Your task to perform on an android device: open app "Messenger Lite" (install if not already installed) Image 0: 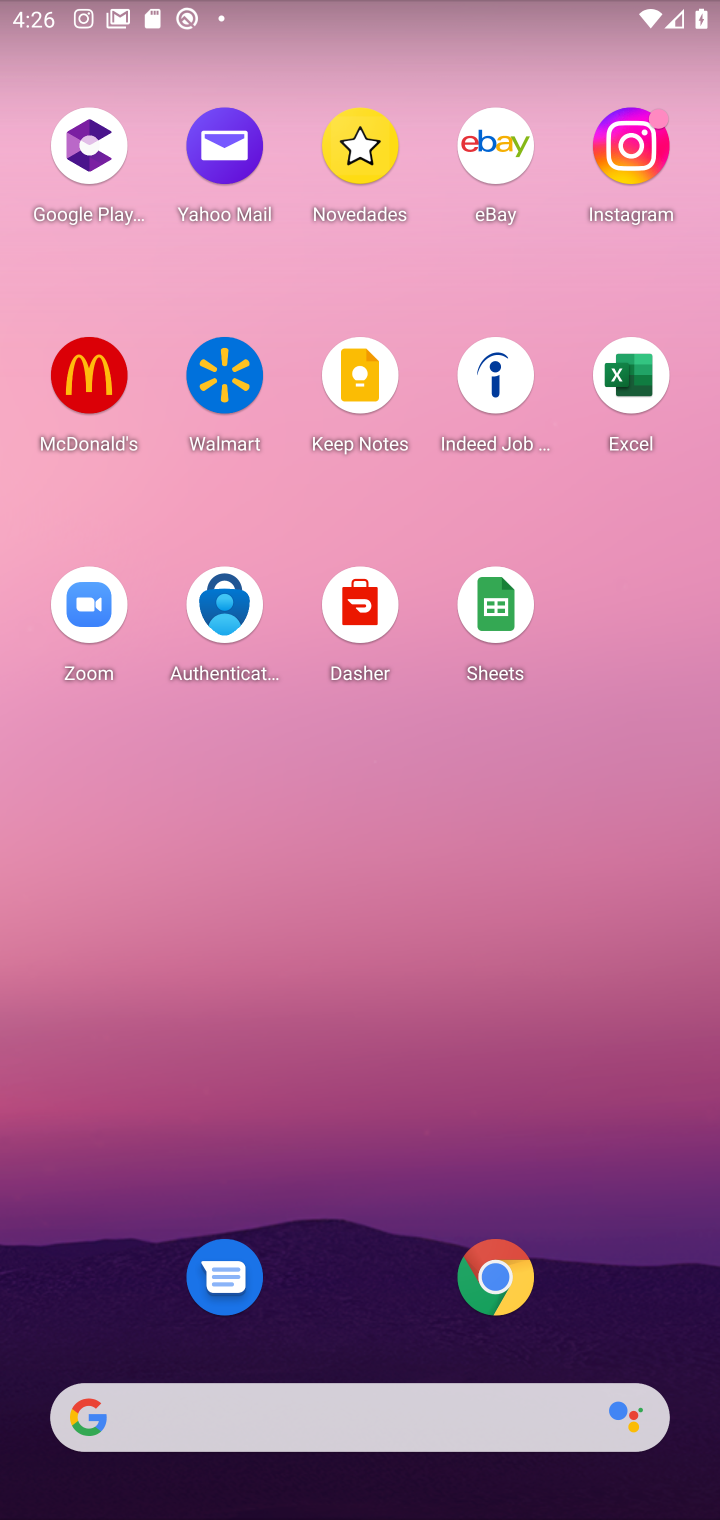
Step 0: drag from (547, 1030) to (514, 9)
Your task to perform on an android device: open app "Messenger Lite" (install if not already installed) Image 1: 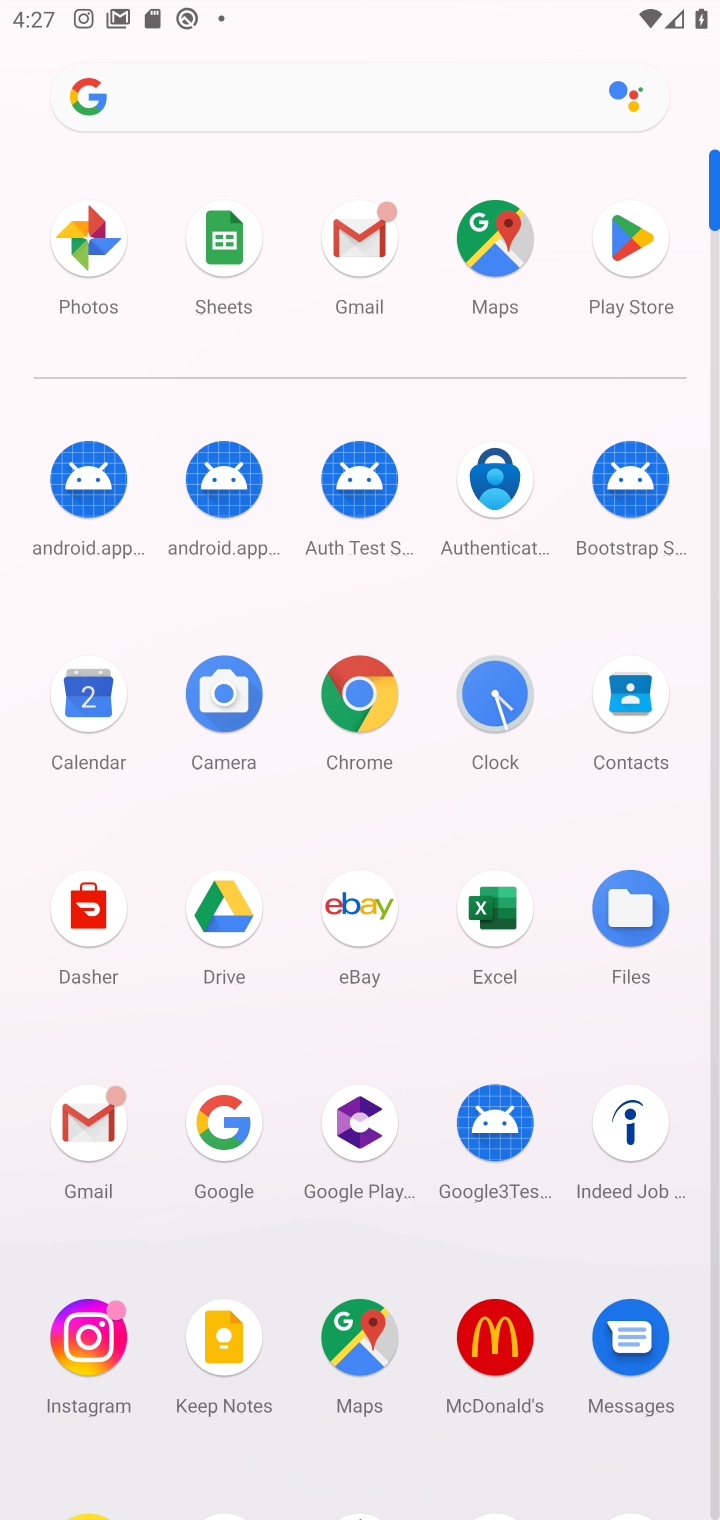
Step 1: drag from (435, 1035) to (457, 349)
Your task to perform on an android device: open app "Messenger Lite" (install if not already installed) Image 2: 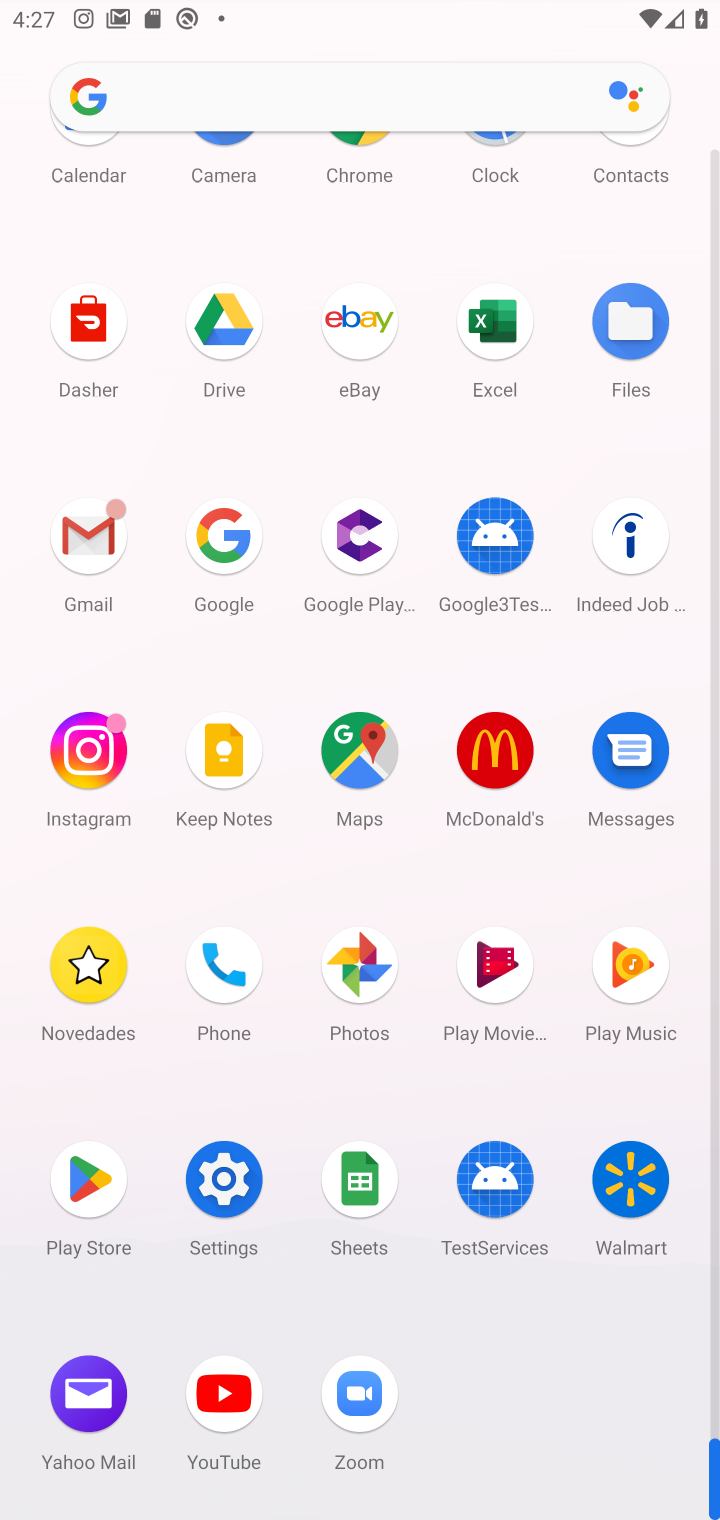
Step 2: click (90, 1187)
Your task to perform on an android device: open app "Messenger Lite" (install if not already installed) Image 3: 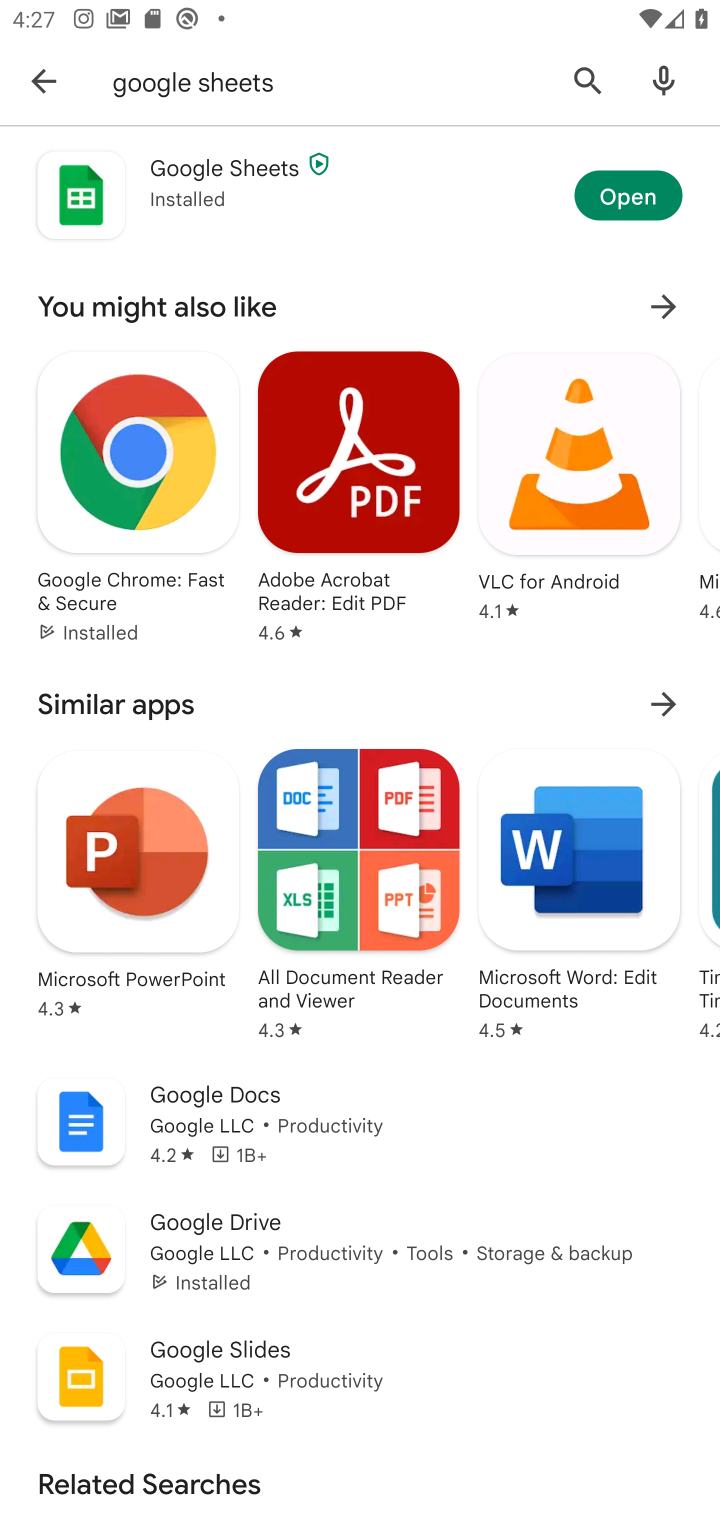
Step 3: click (229, 93)
Your task to perform on an android device: open app "Messenger Lite" (install if not already installed) Image 4: 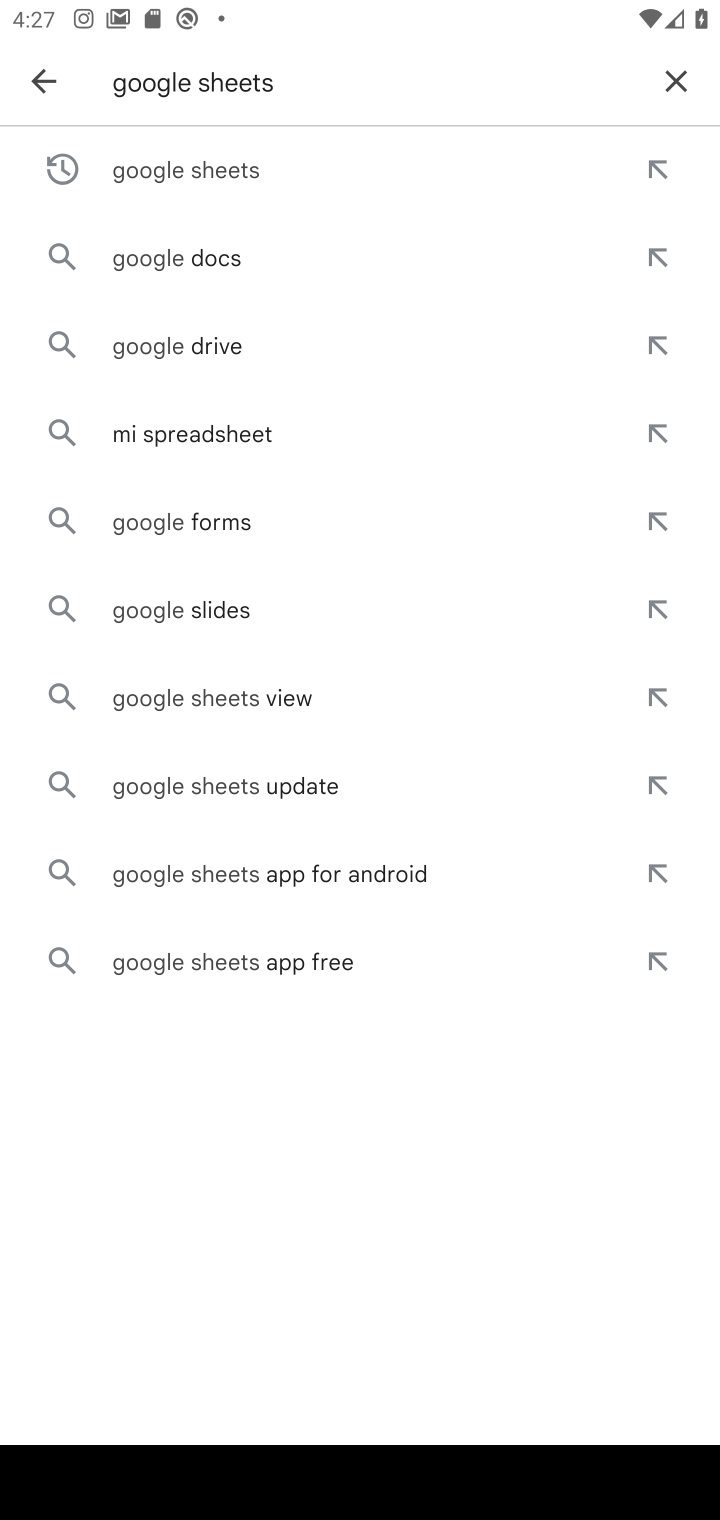
Step 4: click (688, 82)
Your task to perform on an android device: open app "Messenger Lite" (install if not already installed) Image 5: 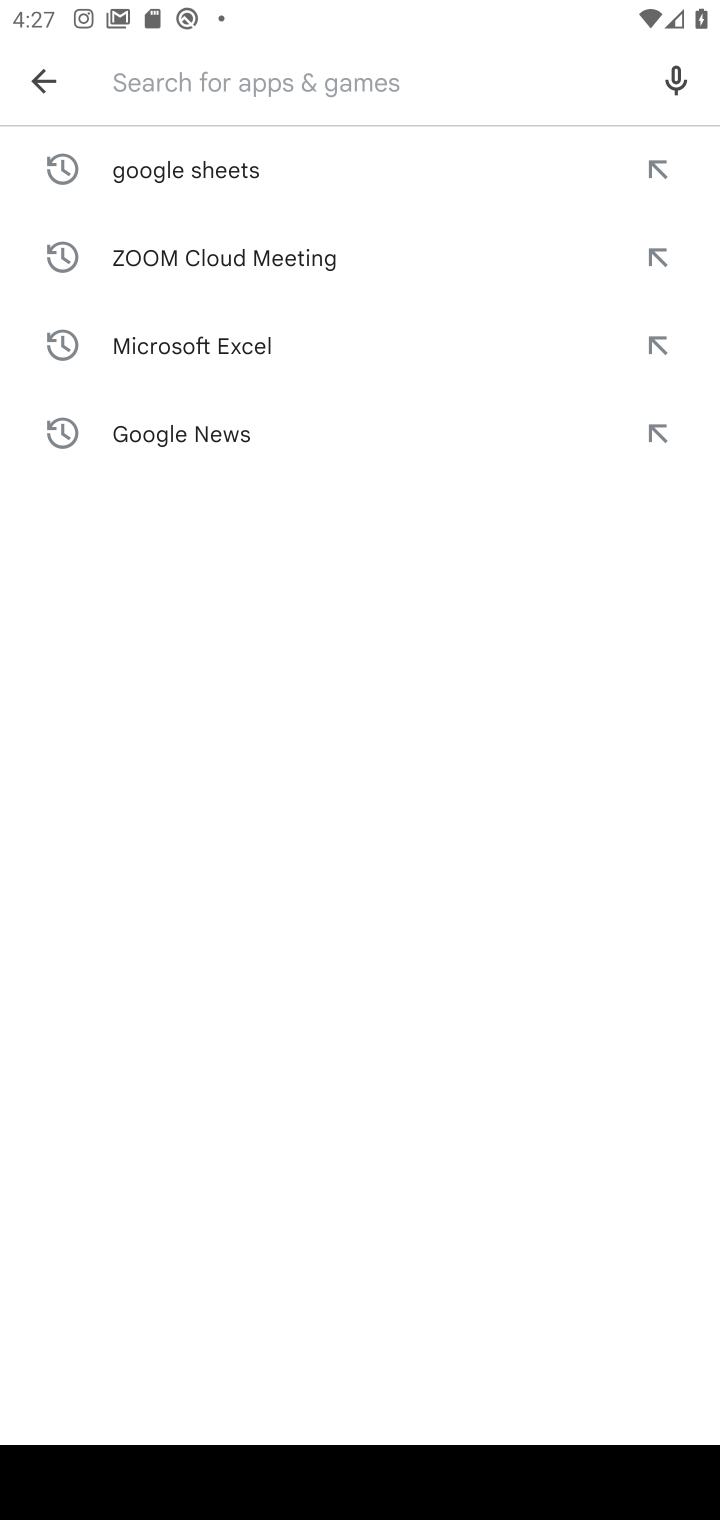
Step 5: type "Messenger Lite"
Your task to perform on an android device: open app "Messenger Lite" (install if not already installed) Image 6: 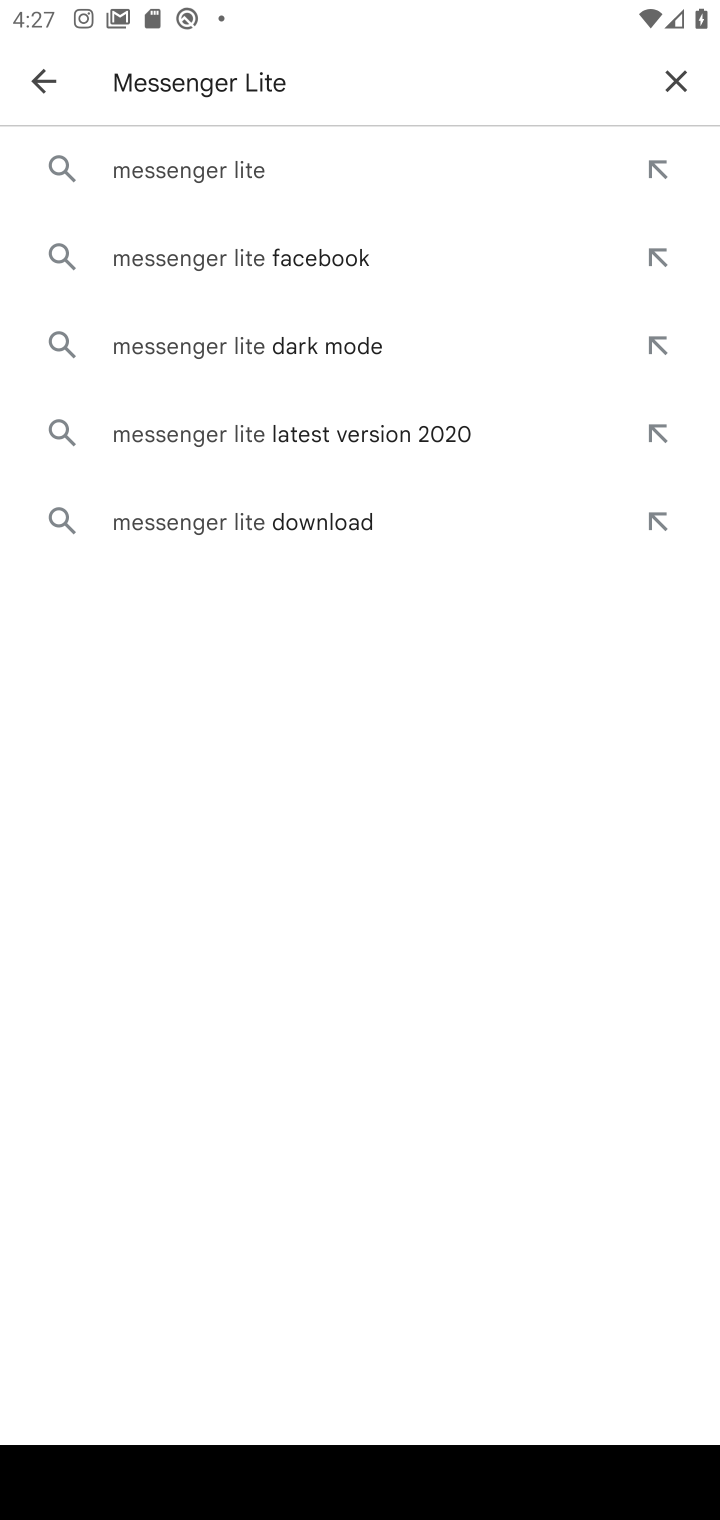
Step 6: press enter
Your task to perform on an android device: open app "Messenger Lite" (install if not already installed) Image 7: 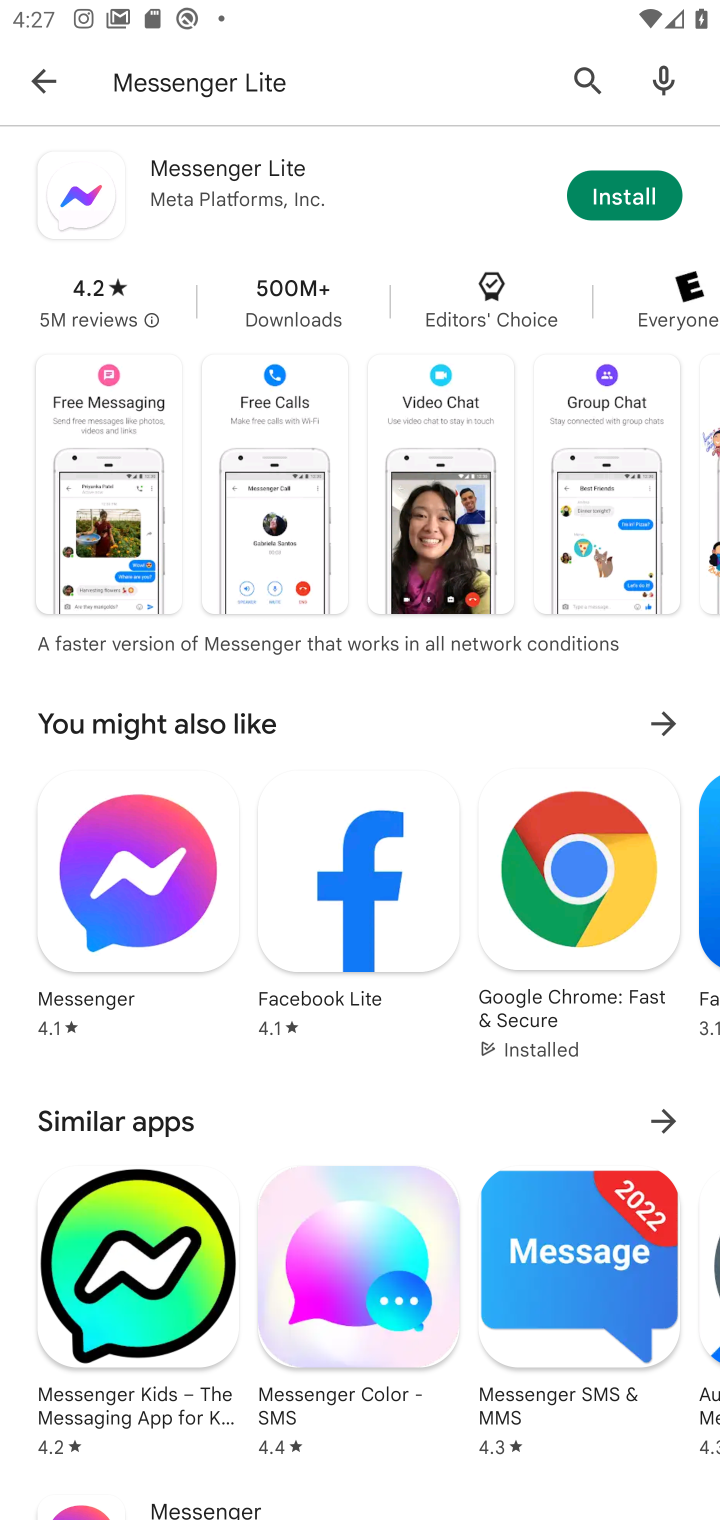
Step 7: click (624, 194)
Your task to perform on an android device: open app "Messenger Lite" (install if not already installed) Image 8: 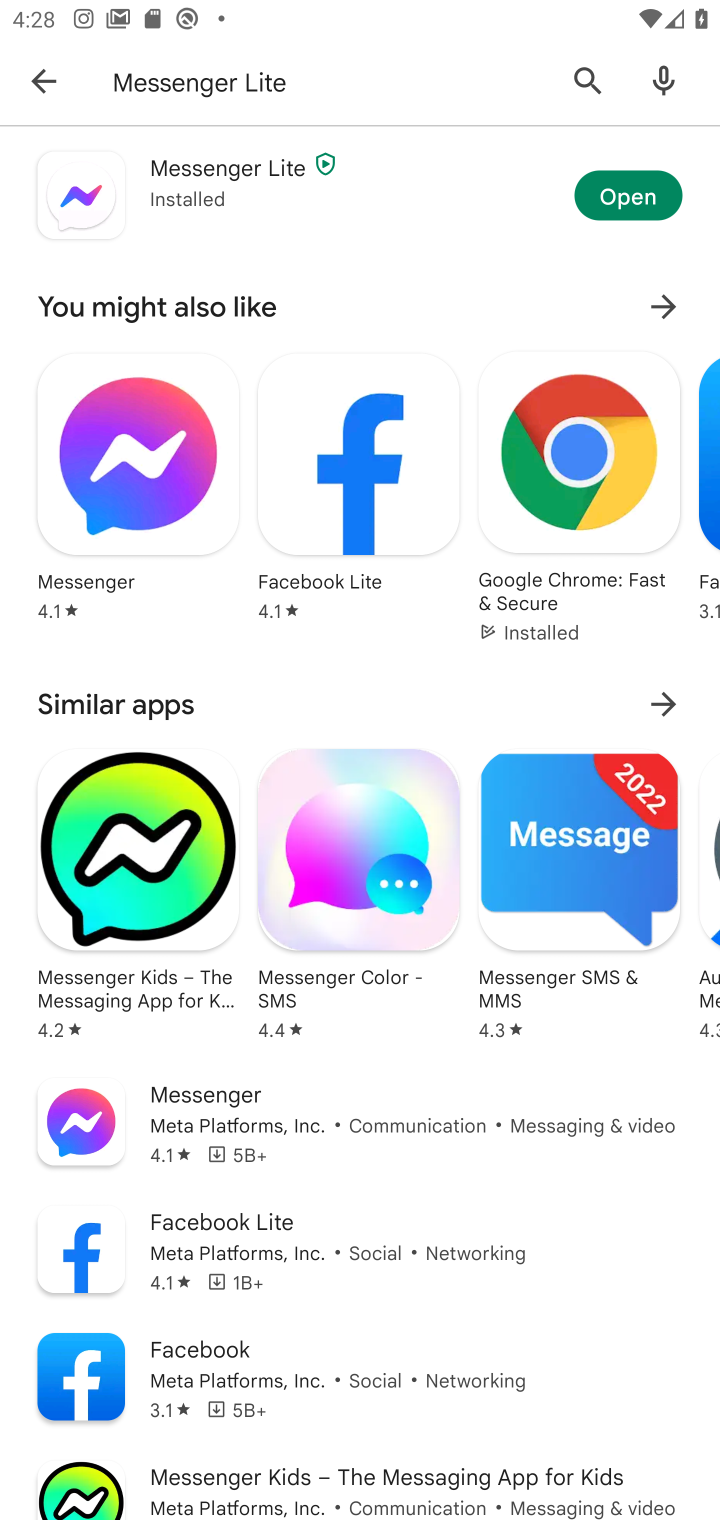
Step 8: click (633, 184)
Your task to perform on an android device: open app "Messenger Lite" (install if not already installed) Image 9: 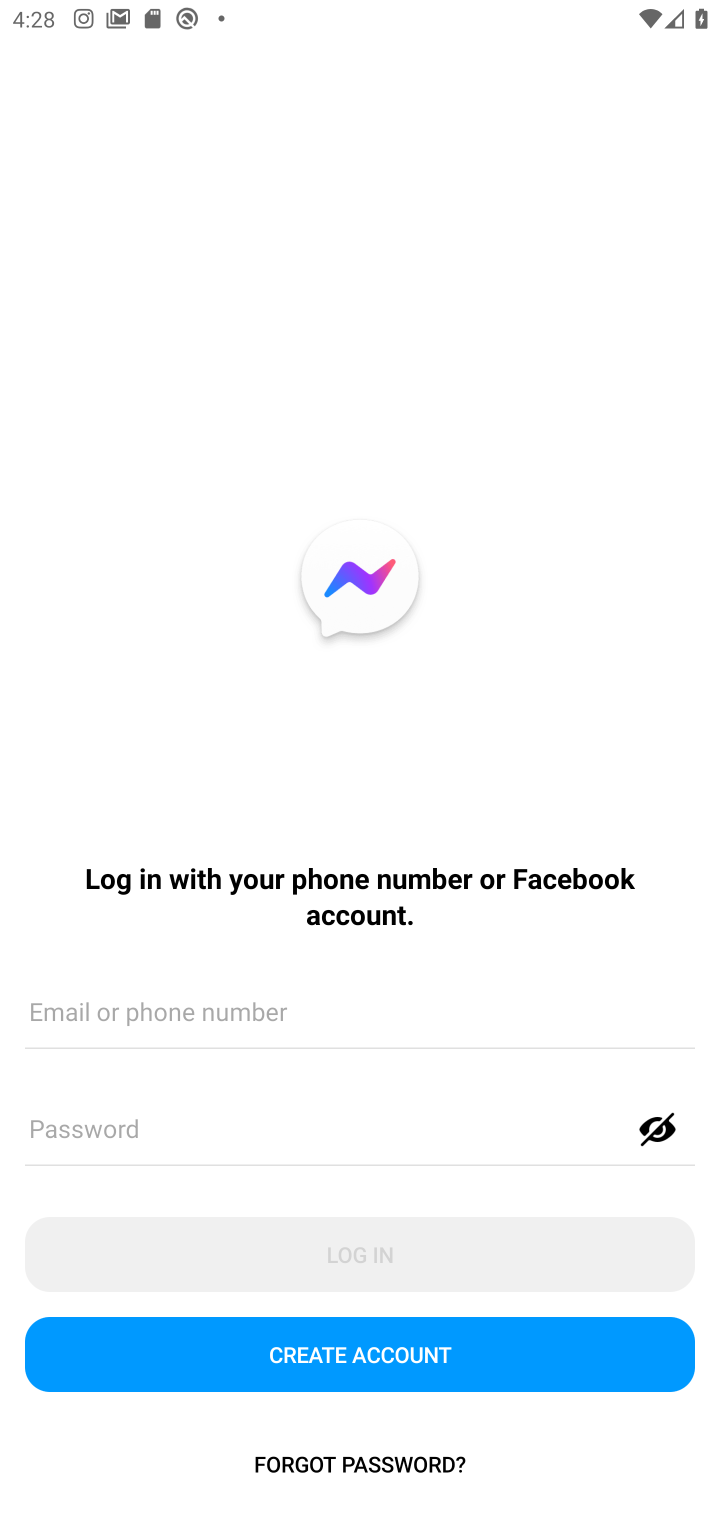
Step 9: task complete